Your task to perform on an android device: Open the calendar and show me this week's events Image 0: 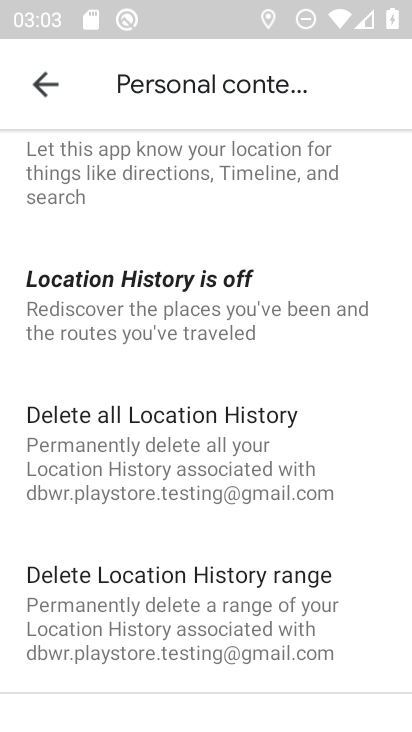
Step 0: press home button
Your task to perform on an android device: Open the calendar and show me this week's events Image 1: 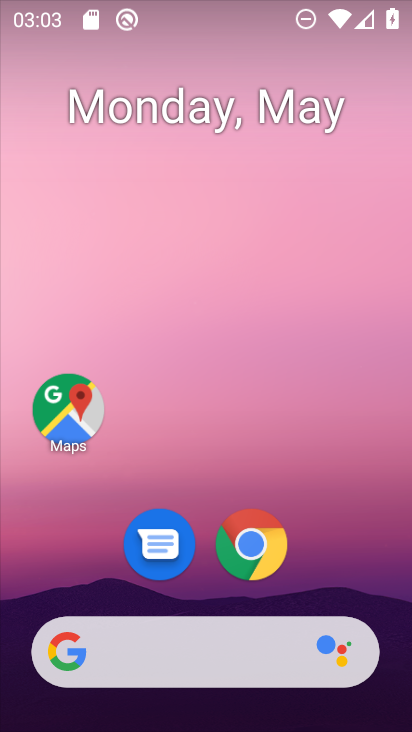
Step 1: drag from (375, 559) to (364, 192)
Your task to perform on an android device: Open the calendar and show me this week's events Image 2: 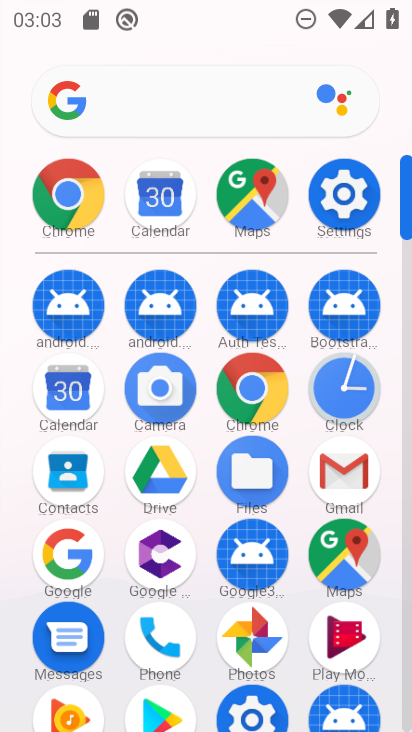
Step 2: click (78, 417)
Your task to perform on an android device: Open the calendar and show me this week's events Image 3: 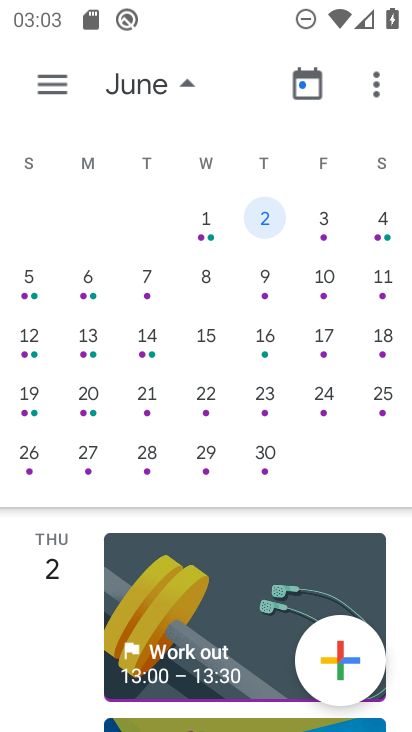
Step 3: task complete